Your task to perform on an android device: Clear the shopping cart on costco.com. Add apple airpods to the cart on costco.com, then select checkout. Image 0: 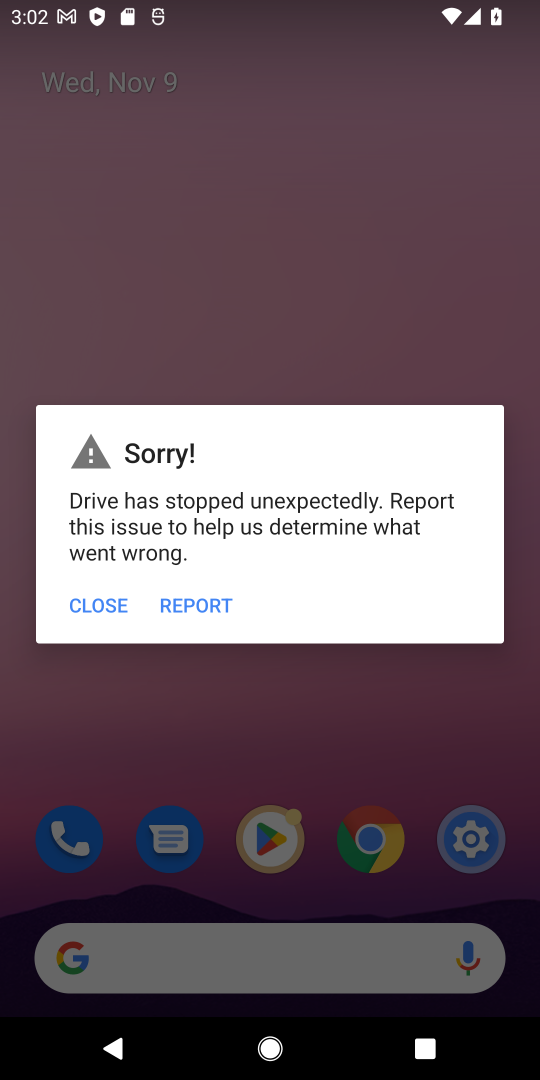
Step 0: click (108, 610)
Your task to perform on an android device: Clear the shopping cart on costco.com. Add apple airpods to the cart on costco.com, then select checkout. Image 1: 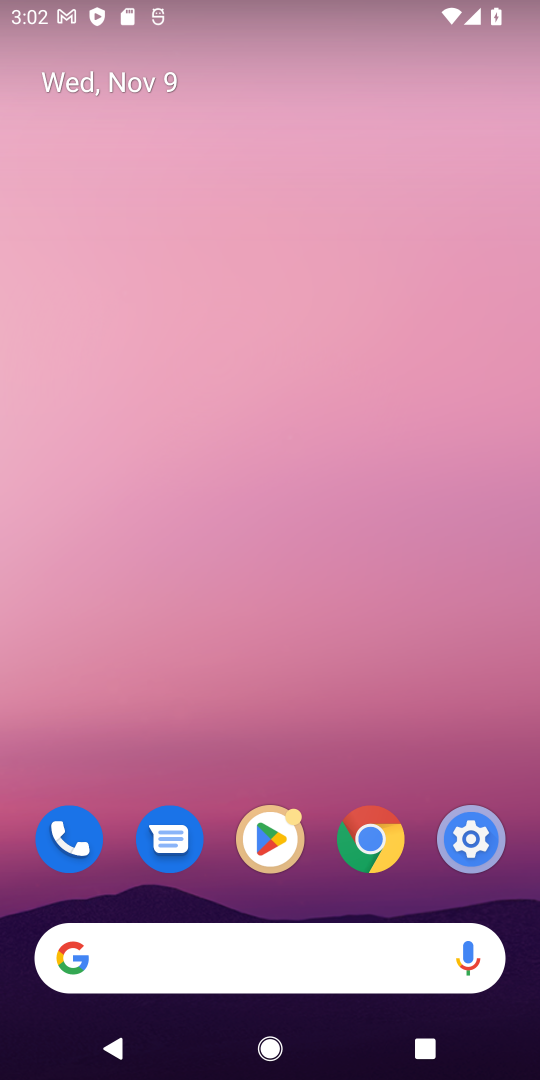
Step 1: click (225, 948)
Your task to perform on an android device: Clear the shopping cart on costco.com. Add apple airpods to the cart on costco.com, then select checkout. Image 2: 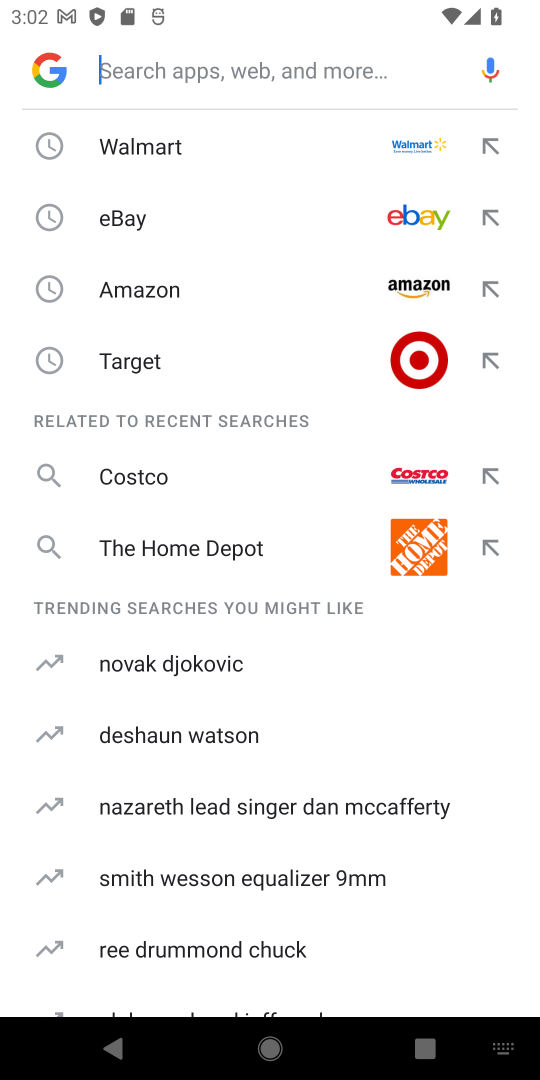
Step 2: click (126, 491)
Your task to perform on an android device: Clear the shopping cart on costco.com. Add apple airpods to the cart on costco.com, then select checkout. Image 3: 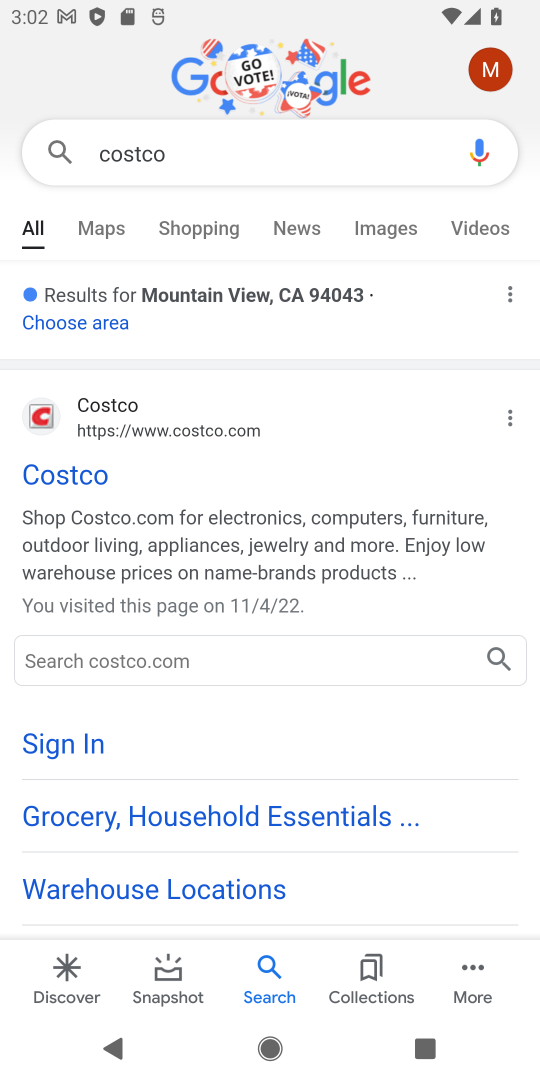
Step 3: click (72, 475)
Your task to perform on an android device: Clear the shopping cart on costco.com. Add apple airpods to the cart on costco.com, then select checkout. Image 4: 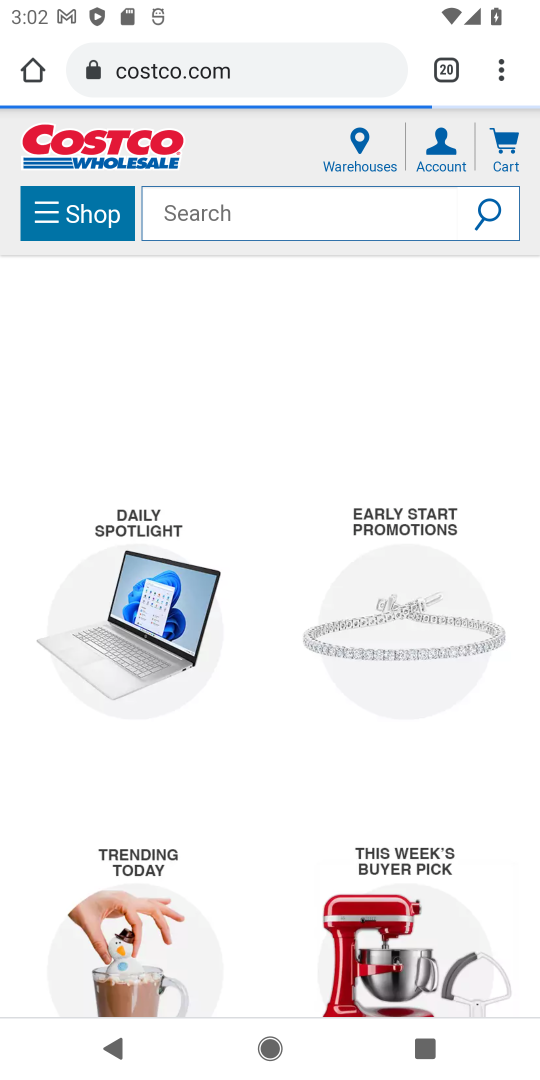
Step 4: click (330, 205)
Your task to perform on an android device: Clear the shopping cart on costco.com. Add apple airpods to the cart on costco.com, then select checkout. Image 5: 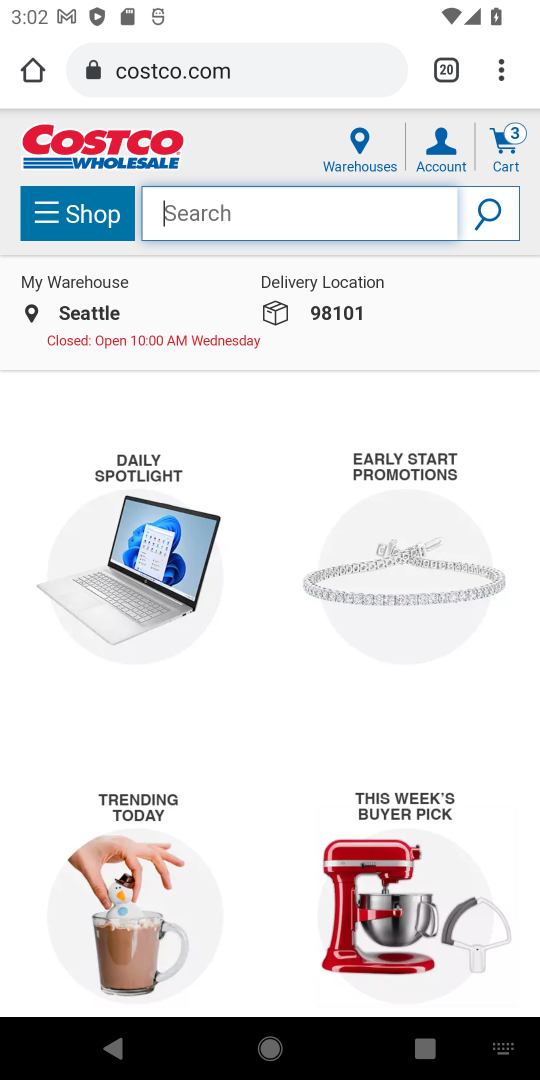
Step 5: type "appple airpods"
Your task to perform on an android device: Clear the shopping cart on costco.com. Add apple airpods to the cart on costco.com, then select checkout. Image 6: 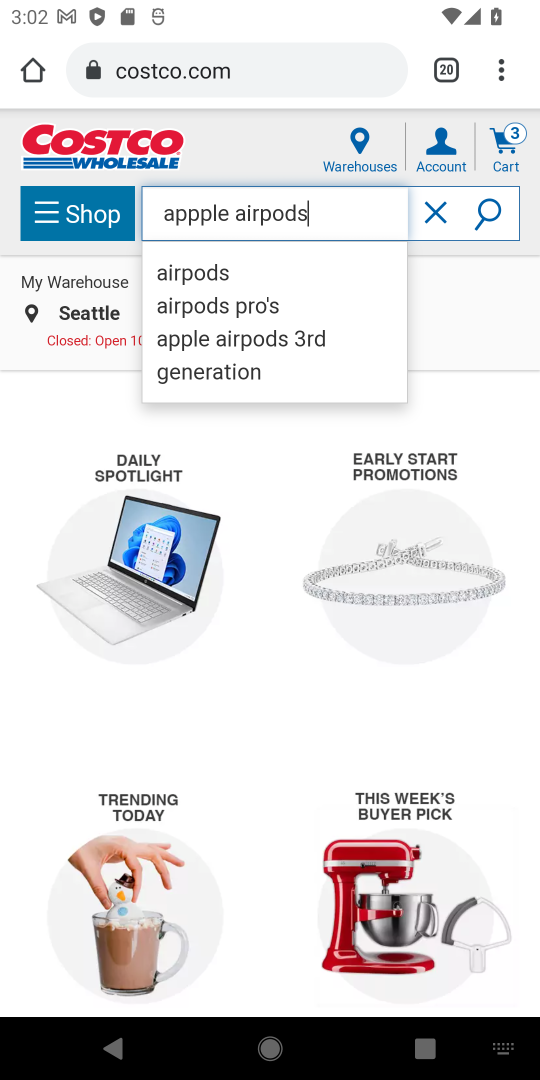
Step 6: click (484, 224)
Your task to perform on an android device: Clear the shopping cart on costco.com. Add apple airpods to the cart on costco.com, then select checkout. Image 7: 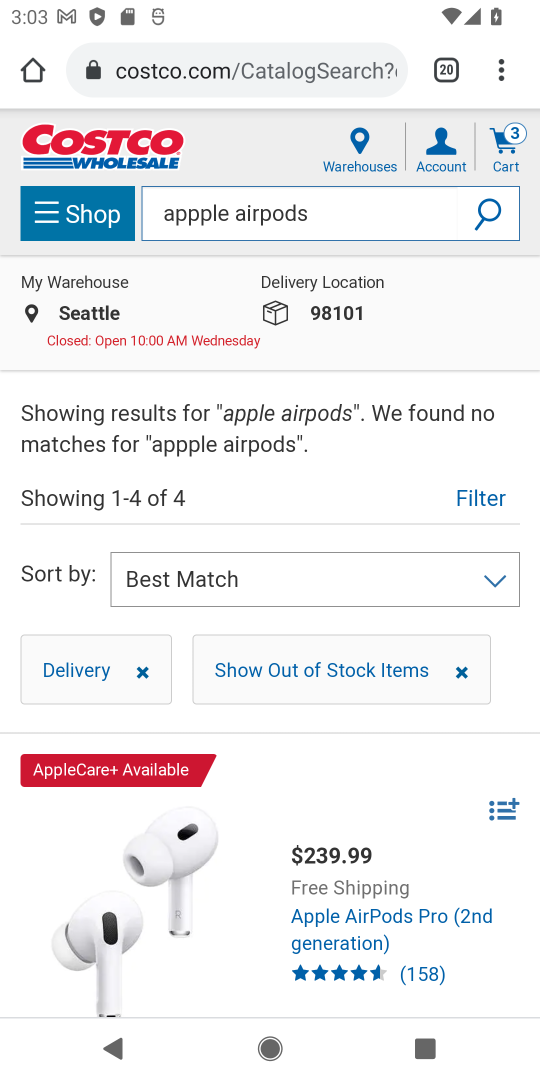
Step 7: task complete